Your task to perform on an android device: Open Reddit.com Image 0: 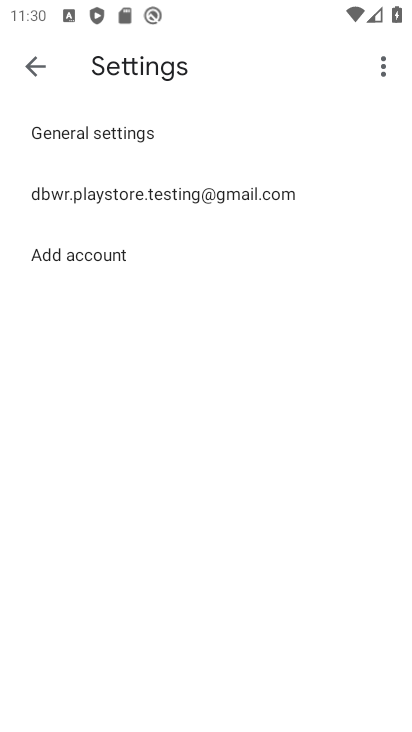
Step 0: press home button
Your task to perform on an android device: Open Reddit.com Image 1: 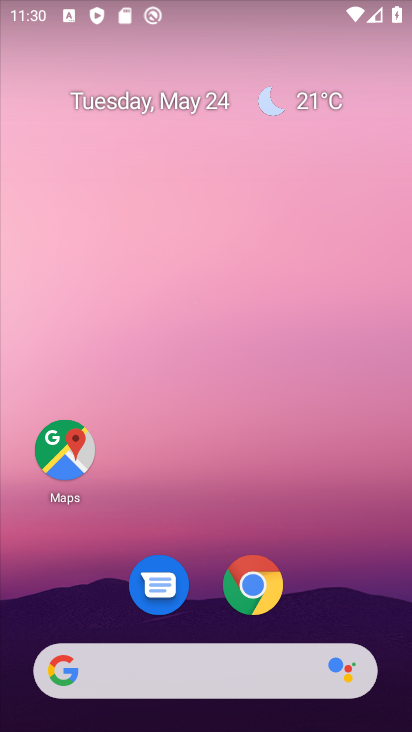
Step 1: click (264, 667)
Your task to perform on an android device: Open Reddit.com Image 2: 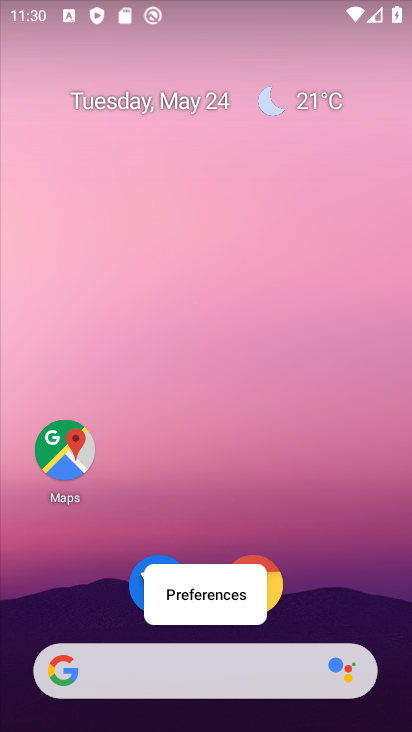
Step 2: click (239, 673)
Your task to perform on an android device: Open Reddit.com Image 3: 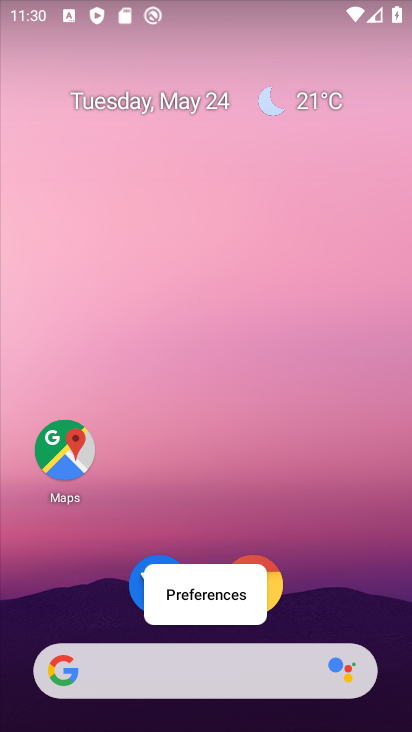
Step 3: click (239, 673)
Your task to perform on an android device: Open Reddit.com Image 4: 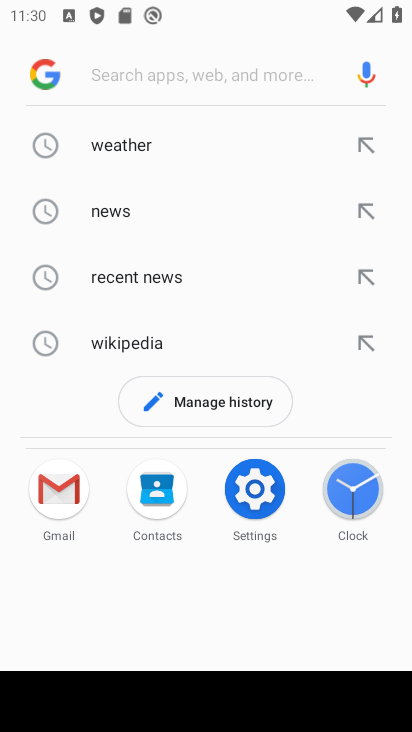
Step 4: type "reddit.com"
Your task to perform on an android device: Open Reddit.com Image 5: 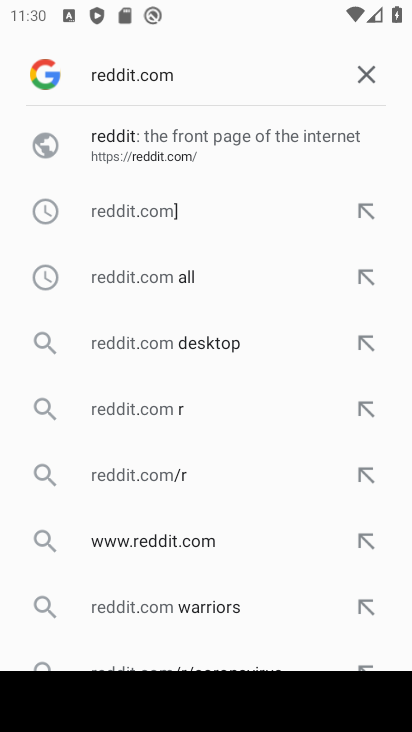
Step 5: click (116, 140)
Your task to perform on an android device: Open Reddit.com Image 6: 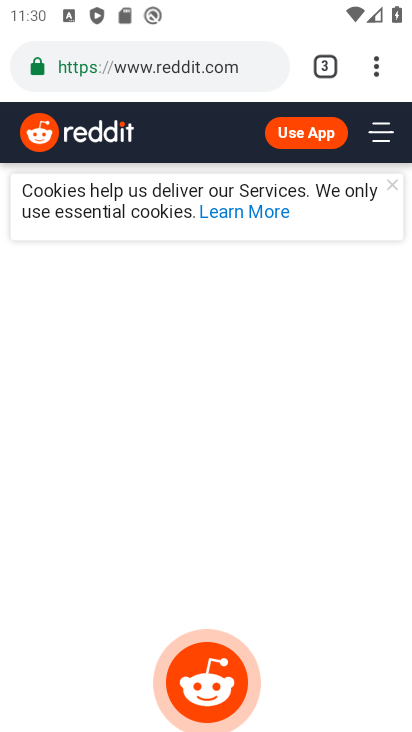
Step 6: task complete